Your task to perform on an android device: set the stopwatch Image 0: 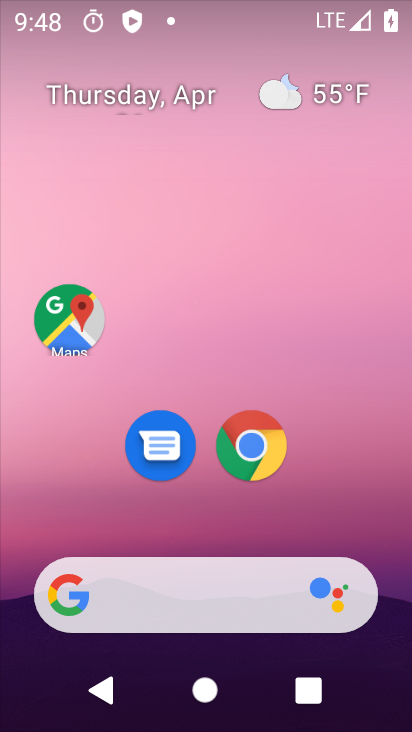
Step 0: drag from (386, 565) to (348, 4)
Your task to perform on an android device: set the stopwatch Image 1: 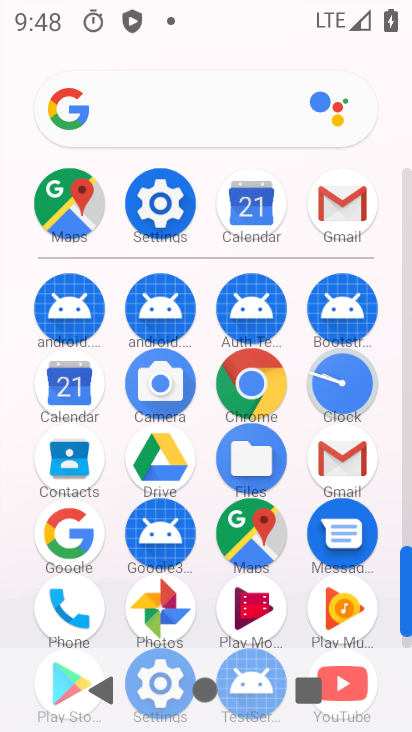
Step 1: click (339, 401)
Your task to perform on an android device: set the stopwatch Image 2: 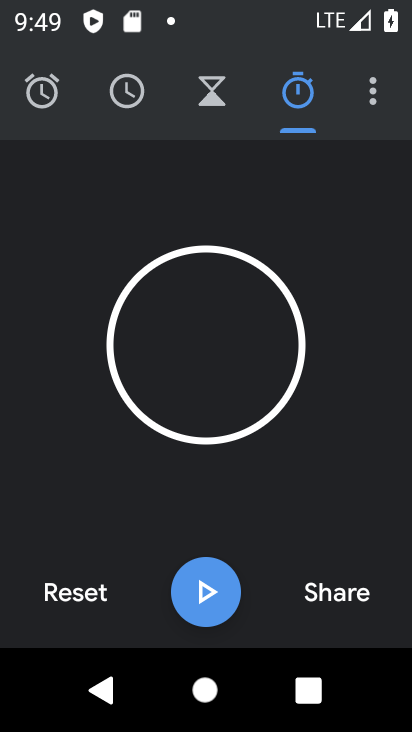
Step 2: click (86, 595)
Your task to perform on an android device: set the stopwatch Image 3: 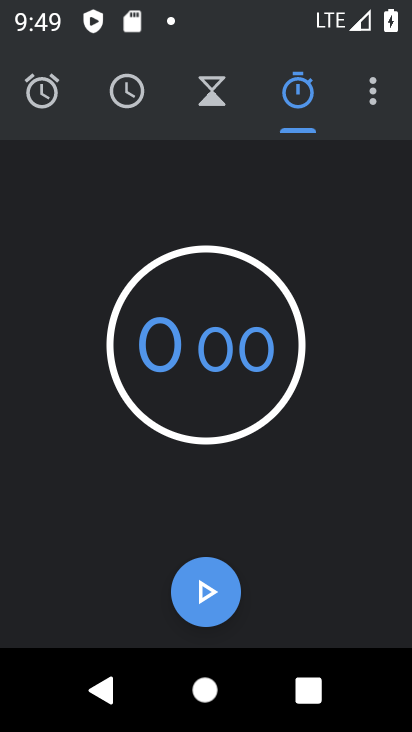
Step 3: click (203, 595)
Your task to perform on an android device: set the stopwatch Image 4: 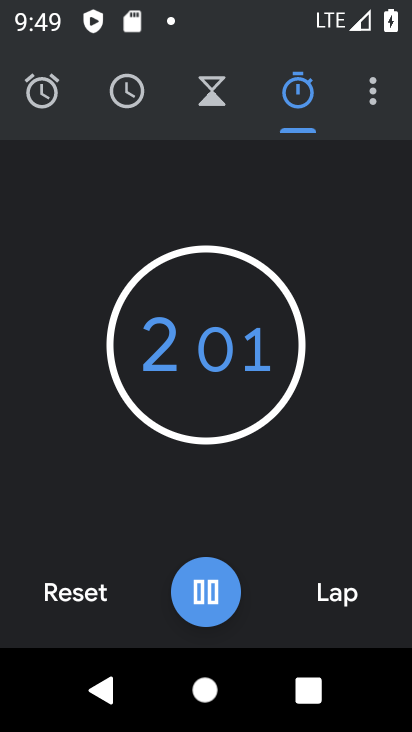
Step 4: click (203, 595)
Your task to perform on an android device: set the stopwatch Image 5: 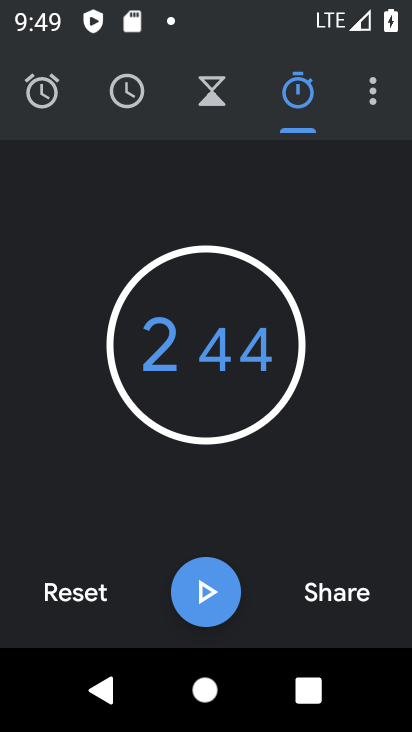
Step 5: task complete